Your task to perform on an android device: change timer sound Image 0: 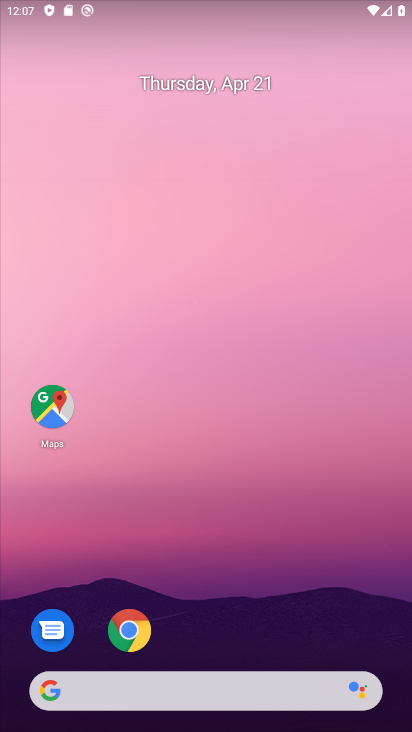
Step 0: drag from (299, 610) to (232, 4)
Your task to perform on an android device: change timer sound Image 1: 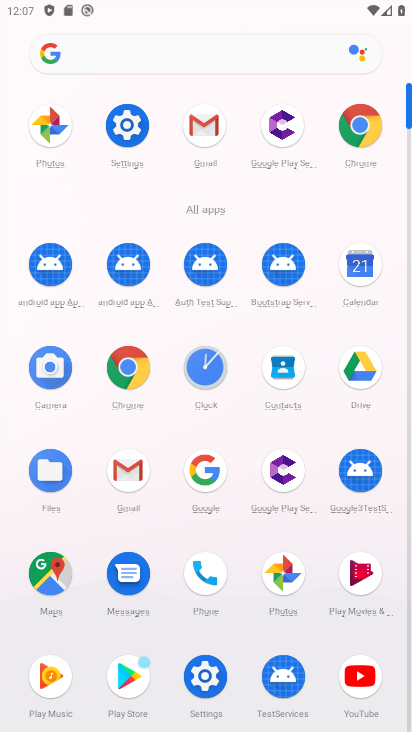
Step 1: click (206, 369)
Your task to perform on an android device: change timer sound Image 2: 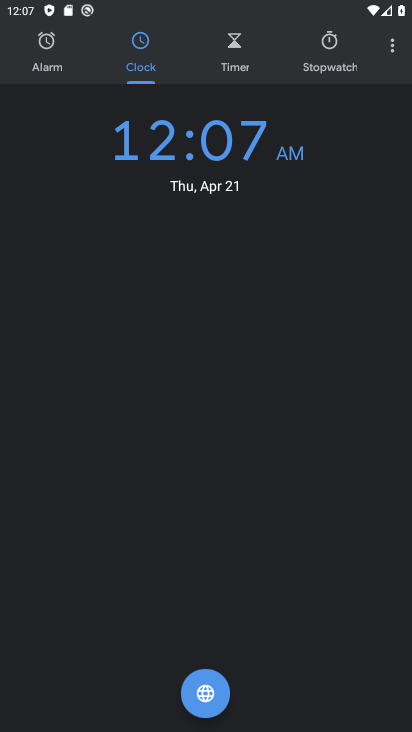
Step 2: click (391, 50)
Your task to perform on an android device: change timer sound Image 3: 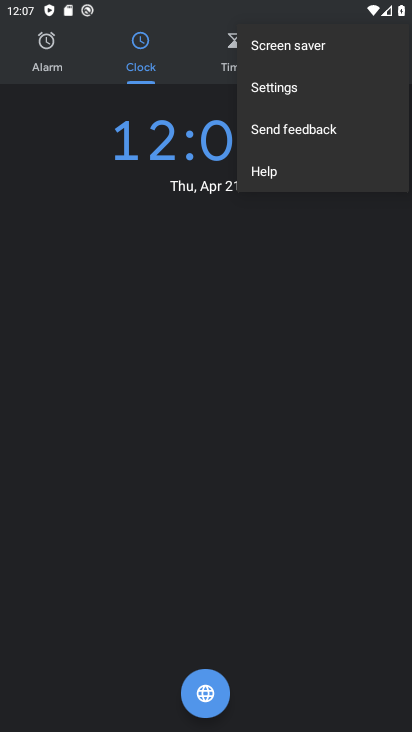
Step 3: click (280, 89)
Your task to perform on an android device: change timer sound Image 4: 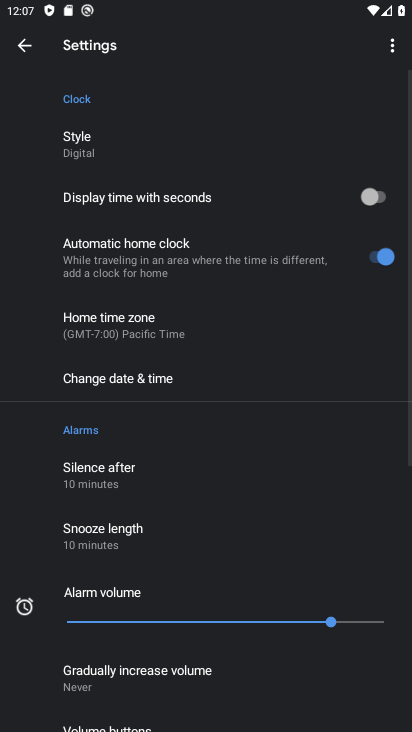
Step 4: drag from (214, 487) to (200, 187)
Your task to perform on an android device: change timer sound Image 5: 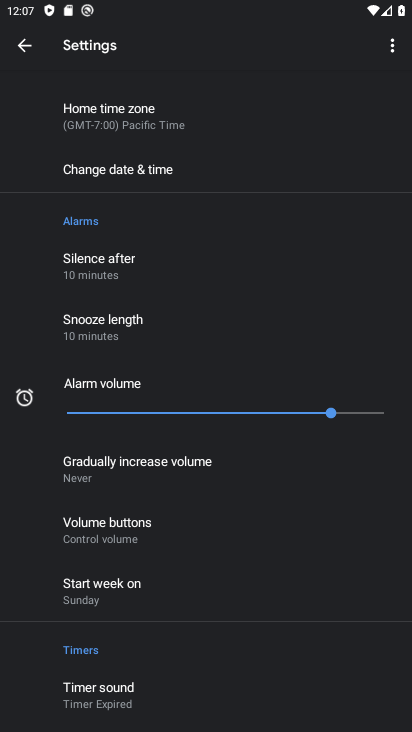
Step 5: click (101, 686)
Your task to perform on an android device: change timer sound Image 6: 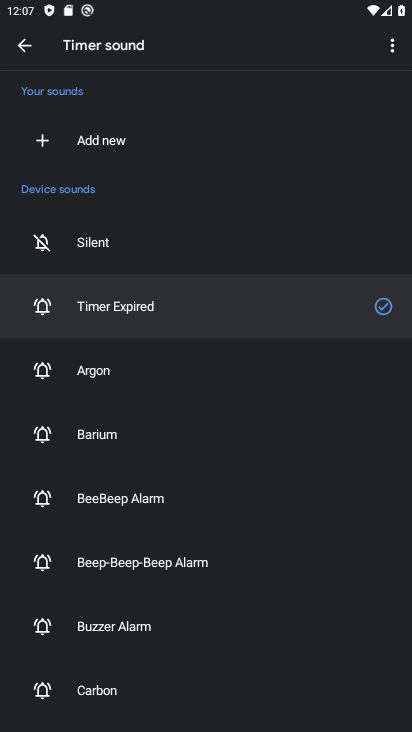
Step 6: click (89, 441)
Your task to perform on an android device: change timer sound Image 7: 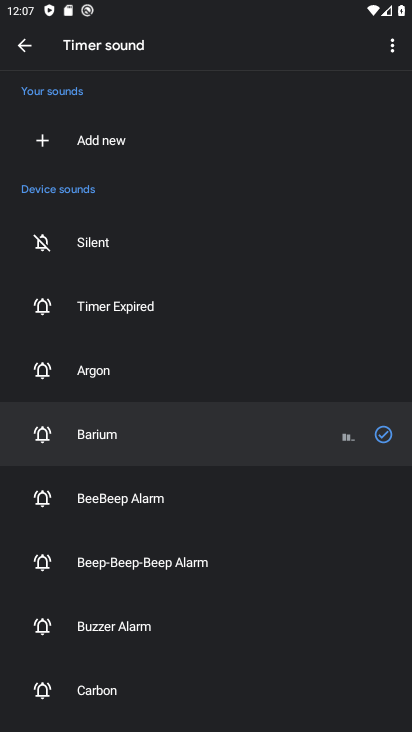
Step 7: task complete